Your task to perform on an android device: turn on javascript in the chrome app Image 0: 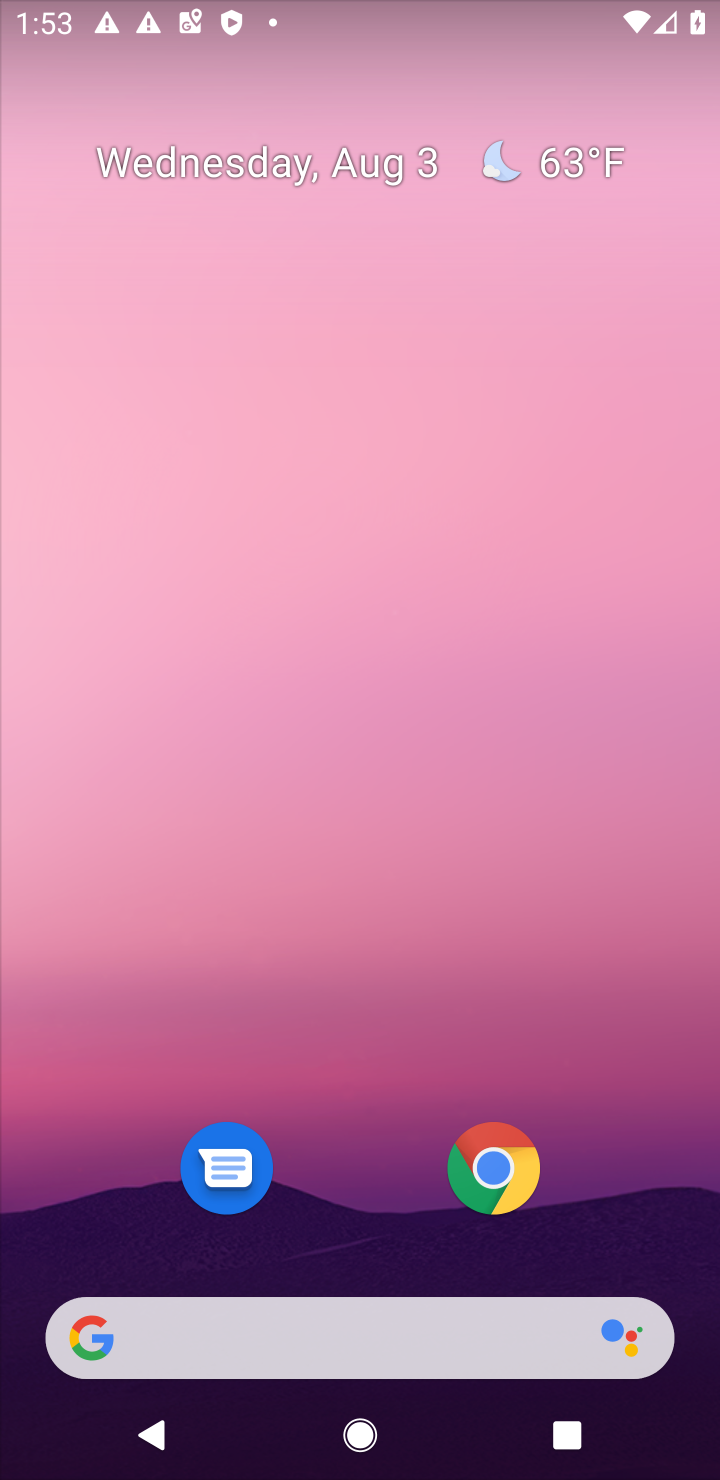
Step 0: click (498, 1170)
Your task to perform on an android device: turn on javascript in the chrome app Image 1: 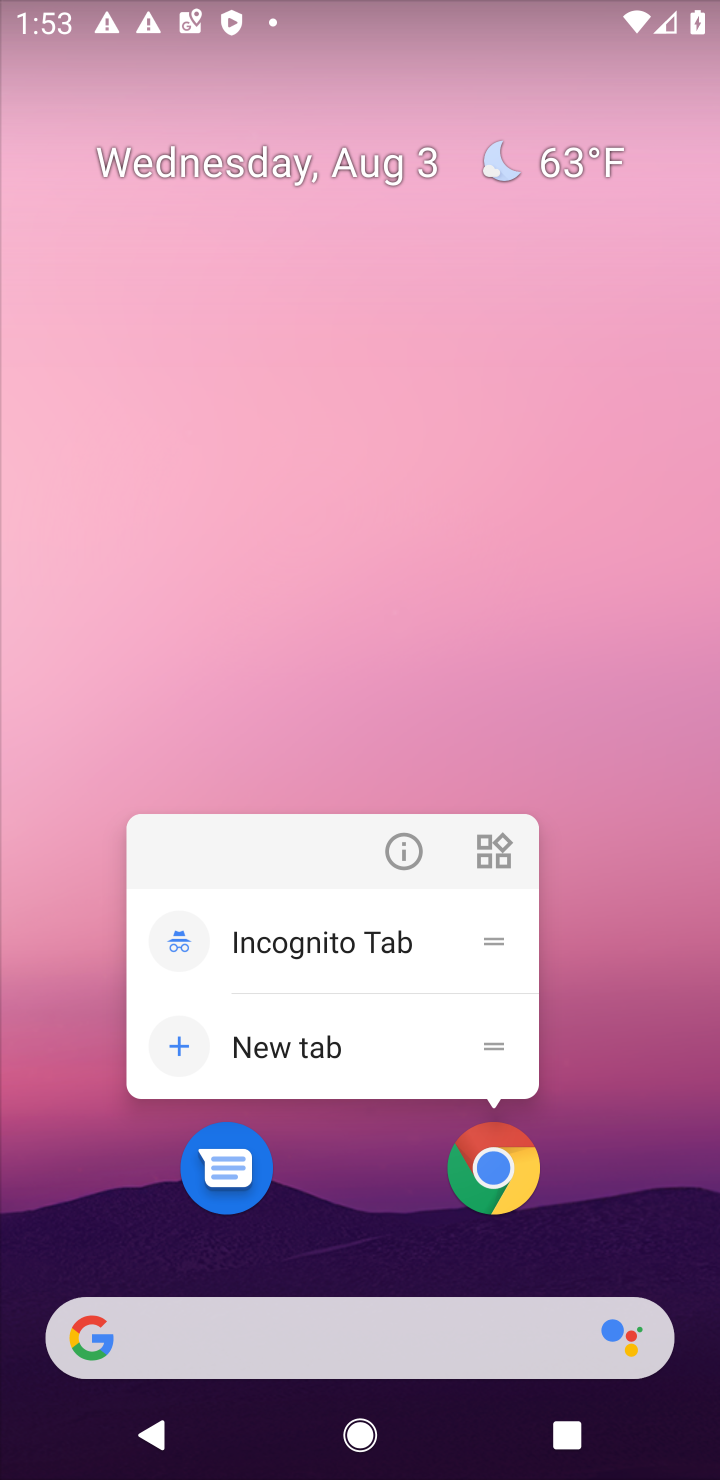
Step 1: click (498, 1170)
Your task to perform on an android device: turn on javascript in the chrome app Image 2: 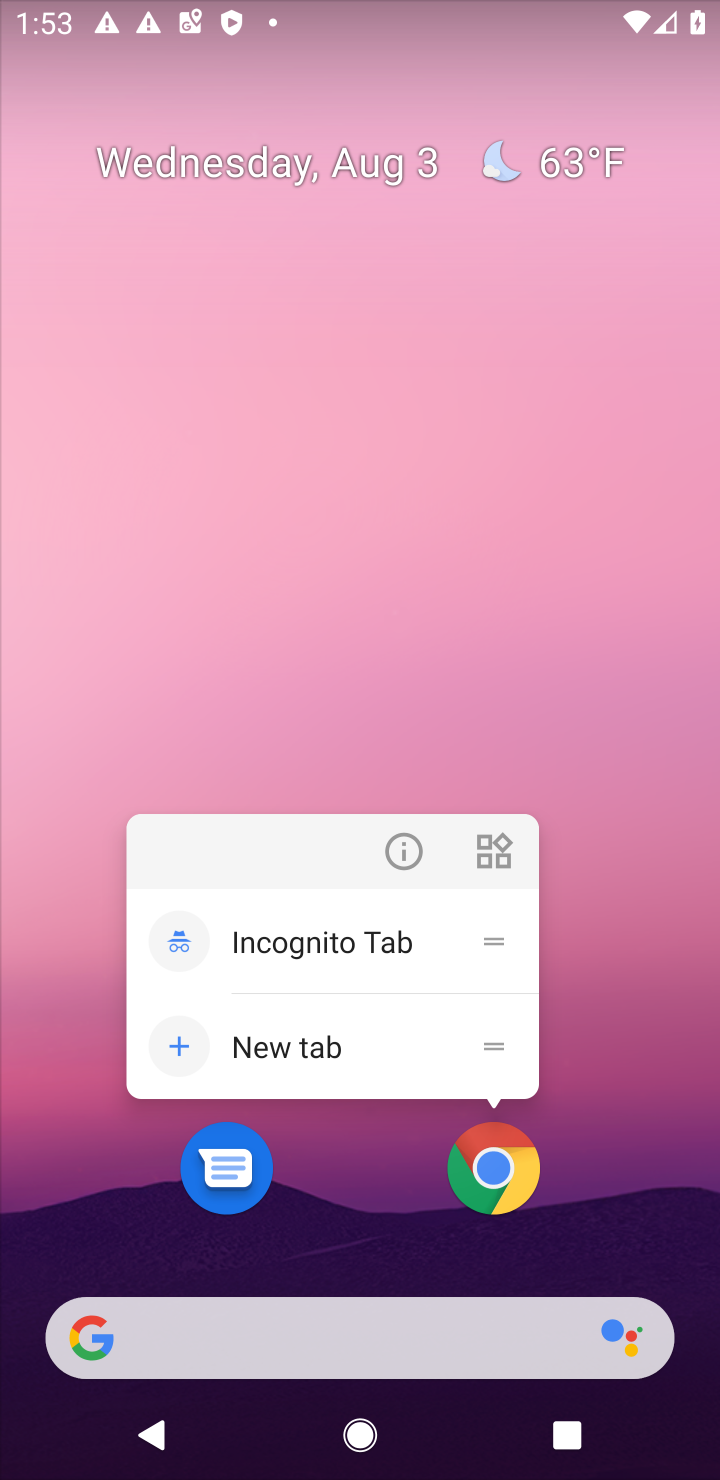
Step 2: click (498, 1168)
Your task to perform on an android device: turn on javascript in the chrome app Image 3: 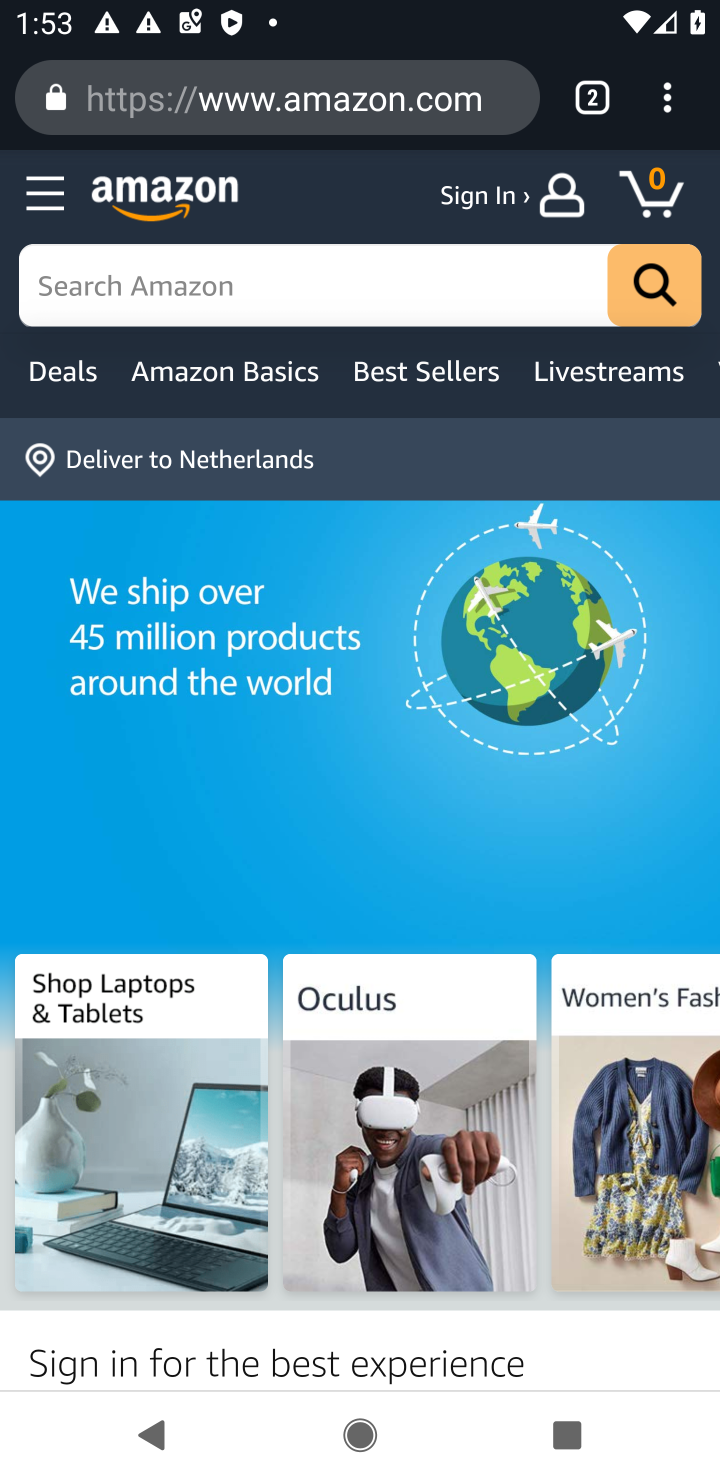
Step 3: click (663, 112)
Your task to perform on an android device: turn on javascript in the chrome app Image 4: 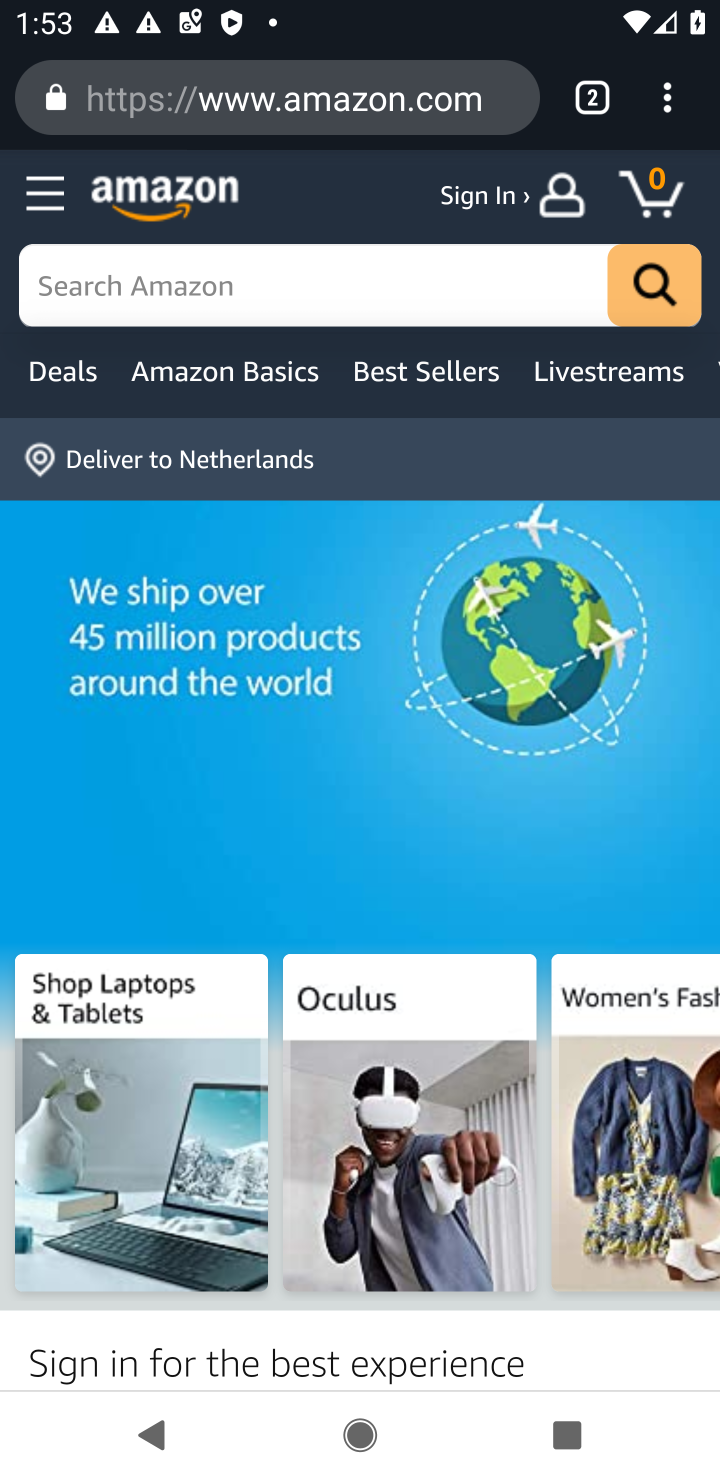
Step 4: click (662, 118)
Your task to perform on an android device: turn on javascript in the chrome app Image 5: 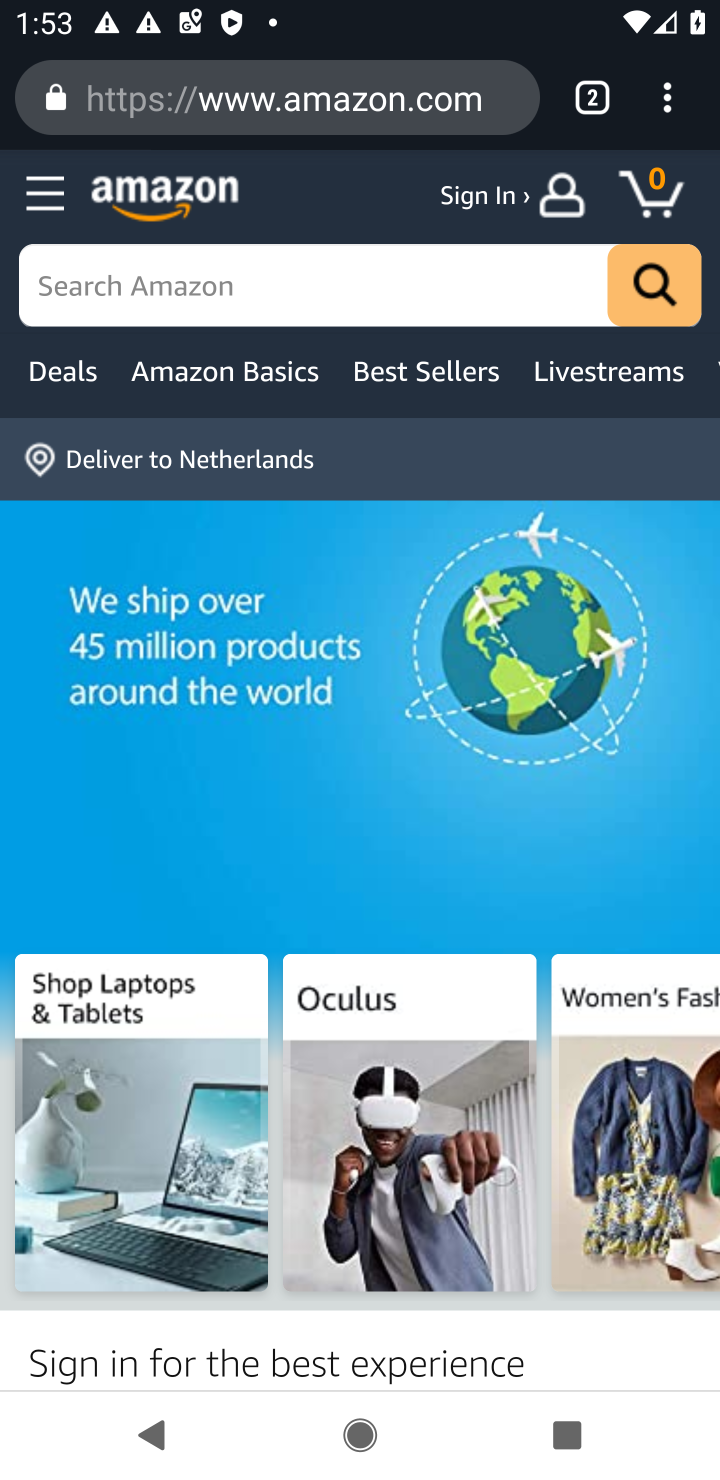
Step 5: task complete